Your task to perform on an android device: change notifications settings Image 0: 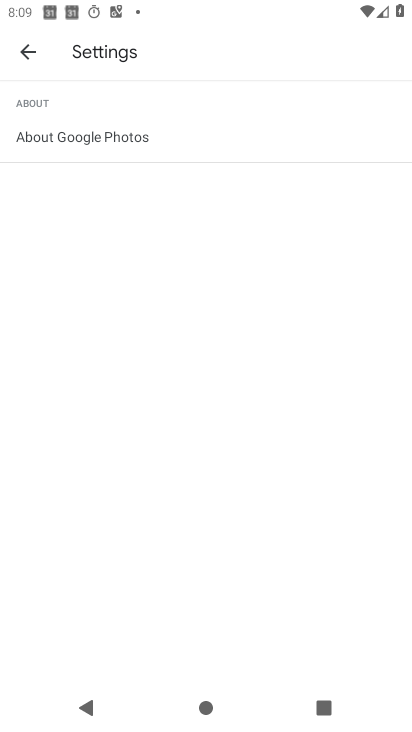
Step 0: press home button
Your task to perform on an android device: change notifications settings Image 1: 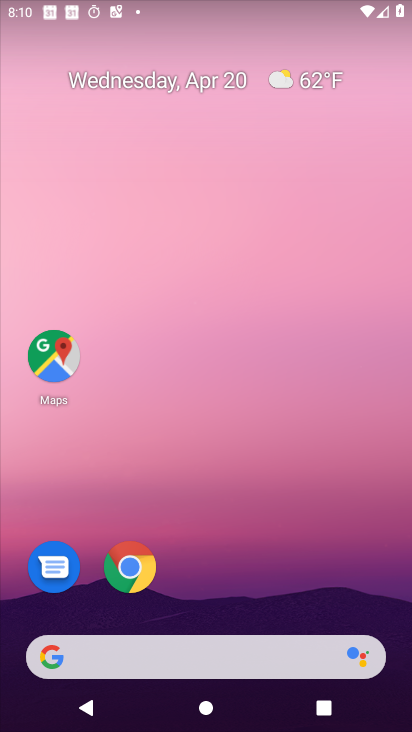
Step 1: drag from (247, 633) to (246, 196)
Your task to perform on an android device: change notifications settings Image 2: 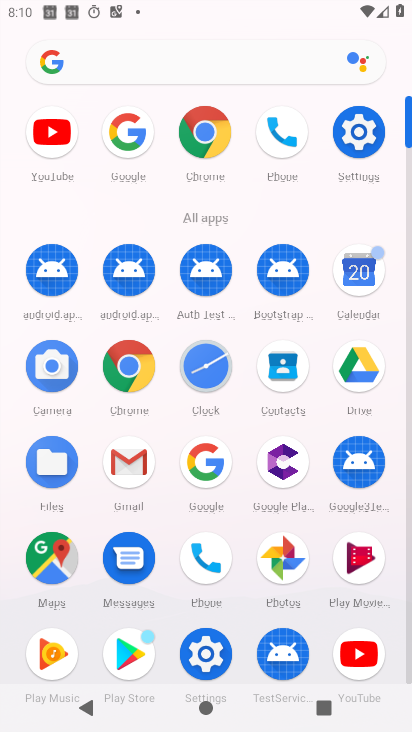
Step 2: click (200, 643)
Your task to perform on an android device: change notifications settings Image 3: 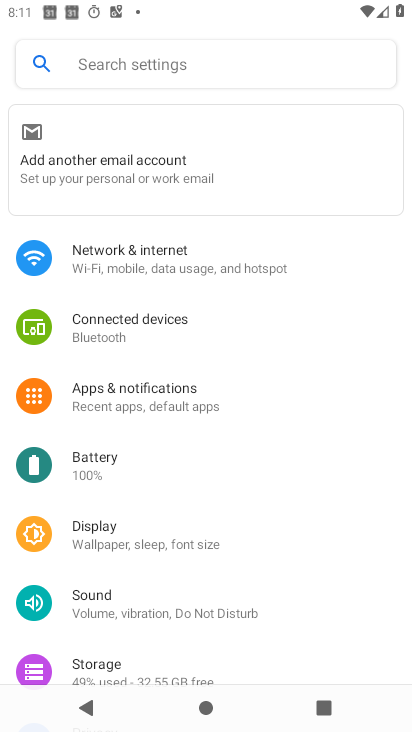
Step 3: click (116, 590)
Your task to perform on an android device: change notifications settings Image 4: 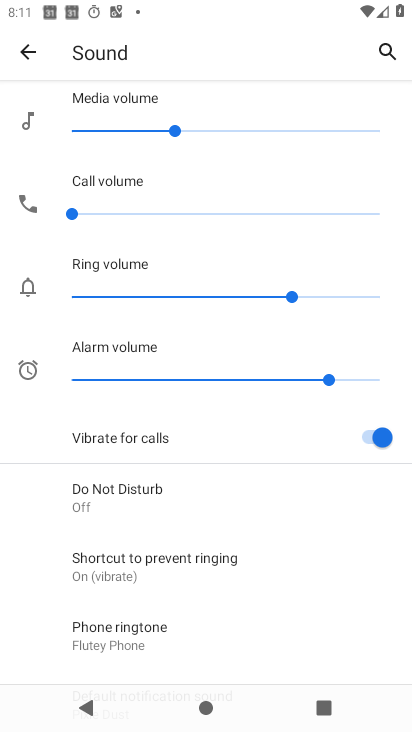
Step 4: click (130, 630)
Your task to perform on an android device: change notifications settings Image 5: 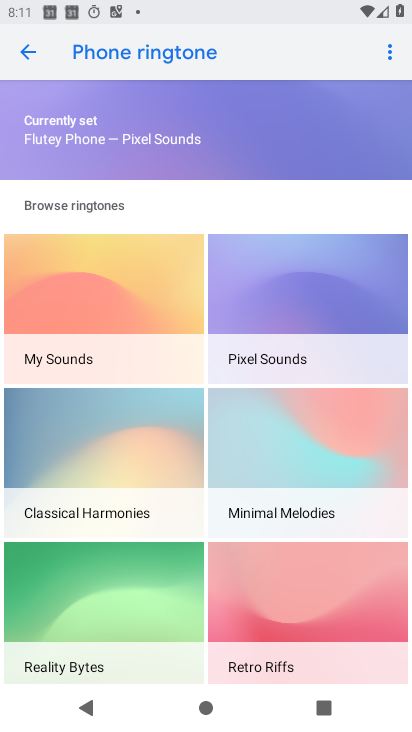
Step 5: click (229, 448)
Your task to perform on an android device: change notifications settings Image 6: 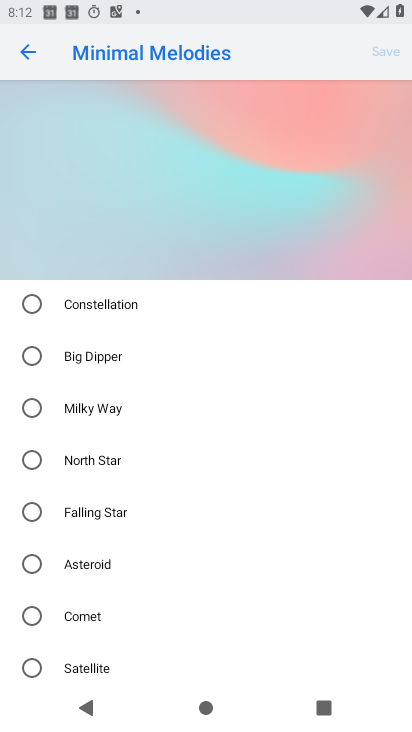
Step 6: click (30, 515)
Your task to perform on an android device: change notifications settings Image 7: 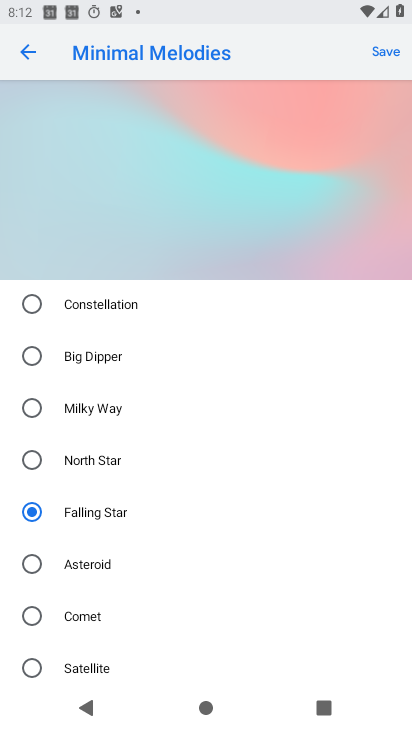
Step 7: click (392, 62)
Your task to perform on an android device: change notifications settings Image 8: 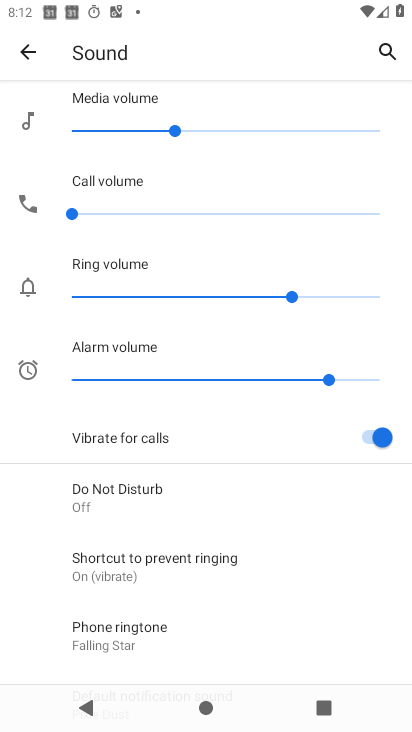
Step 8: task complete